Your task to perform on an android device: turn off sleep mode Image 0: 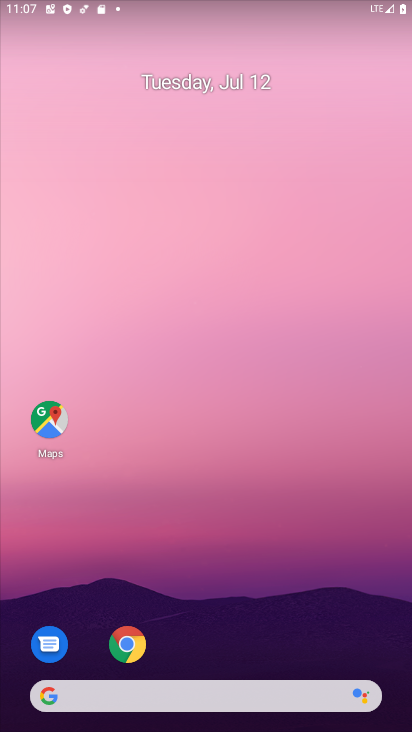
Step 0: drag from (323, 713) to (390, 578)
Your task to perform on an android device: turn off sleep mode Image 1: 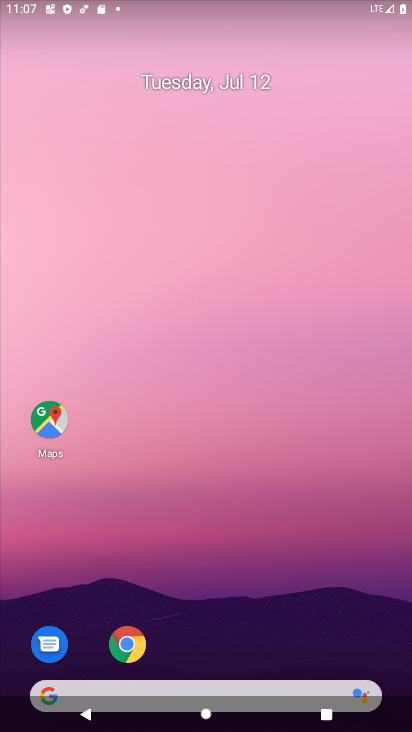
Step 1: drag from (235, 723) to (241, 202)
Your task to perform on an android device: turn off sleep mode Image 2: 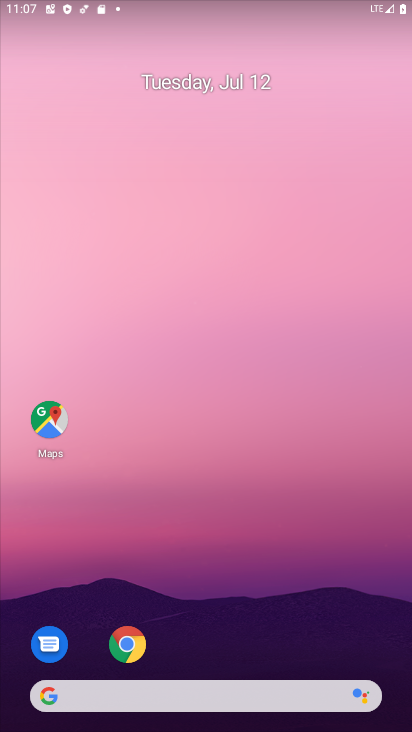
Step 2: drag from (262, 726) to (337, 0)
Your task to perform on an android device: turn off sleep mode Image 3: 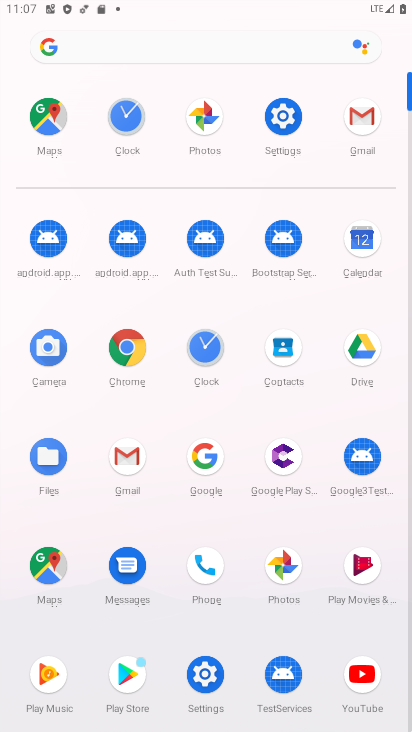
Step 3: click (273, 134)
Your task to perform on an android device: turn off sleep mode Image 4: 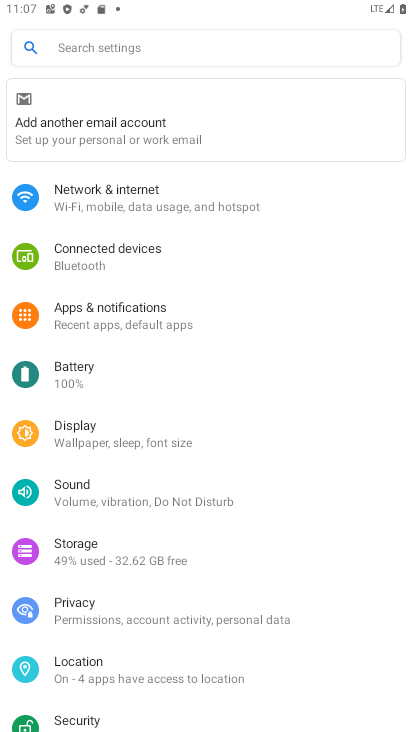
Step 4: click (165, 428)
Your task to perform on an android device: turn off sleep mode Image 5: 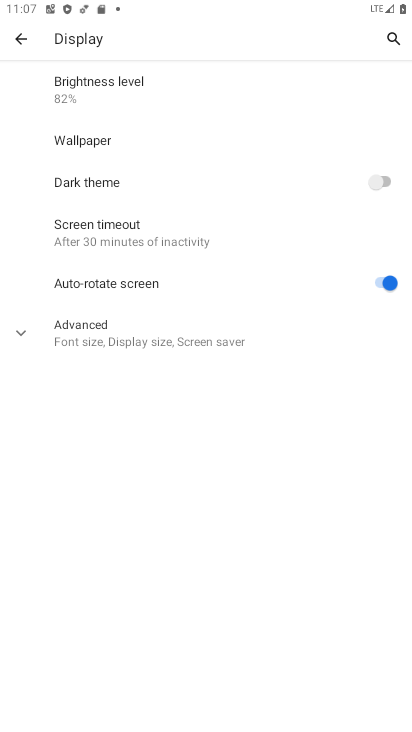
Step 5: task complete